Your task to perform on an android device: What's the weather today? Image 0: 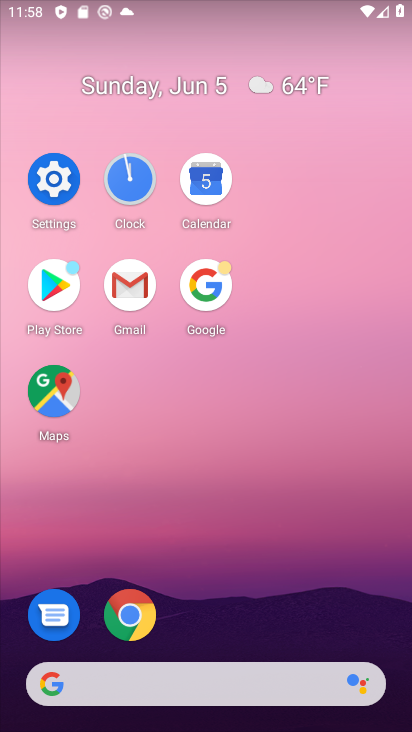
Step 0: click (203, 268)
Your task to perform on an android device: What's the weather today? Image 1: 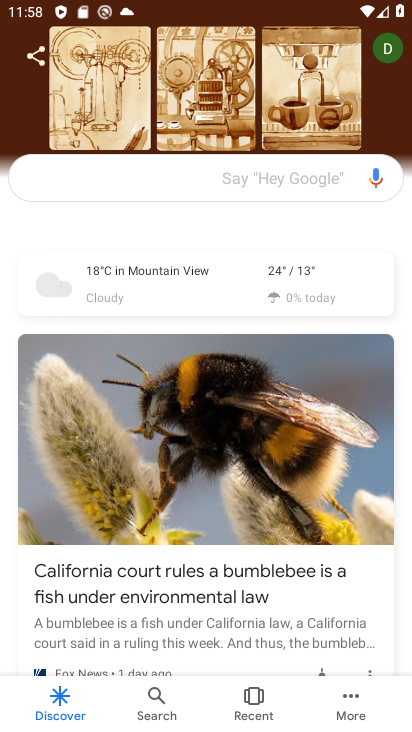
Step 1: click (213, 278)
Your task to perform on an android device: What's the weather today? Image 2: 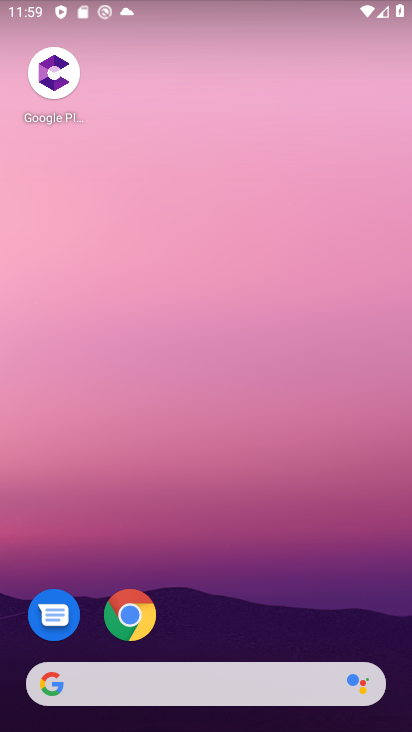
Step 2: drag from (67, 409) to (289, 271)
Your task to perform on an android device: What's the weather today? Image 3: 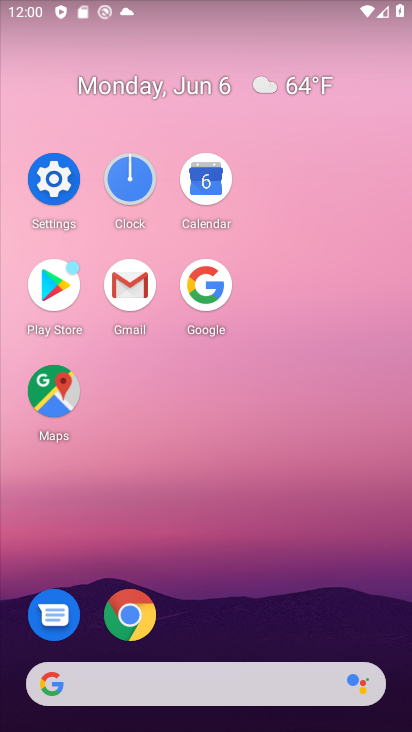
Step 3: click (207, 271)
Your task to perform on an android device: What's the weather today? Image 4: 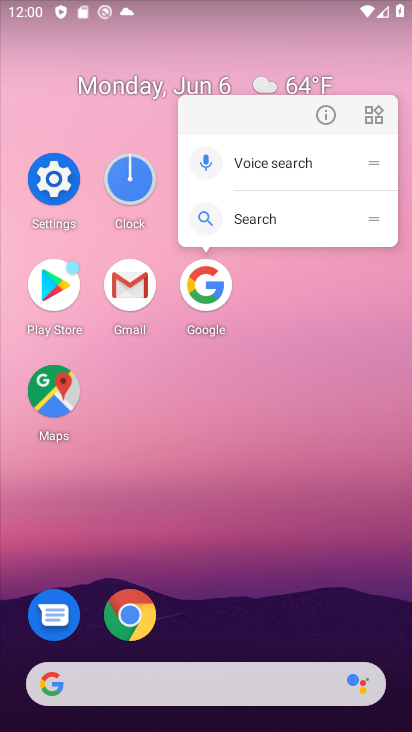
Step 4: click (210, 296)
Your task to perform on an android device: What's the weather today? Image 5: 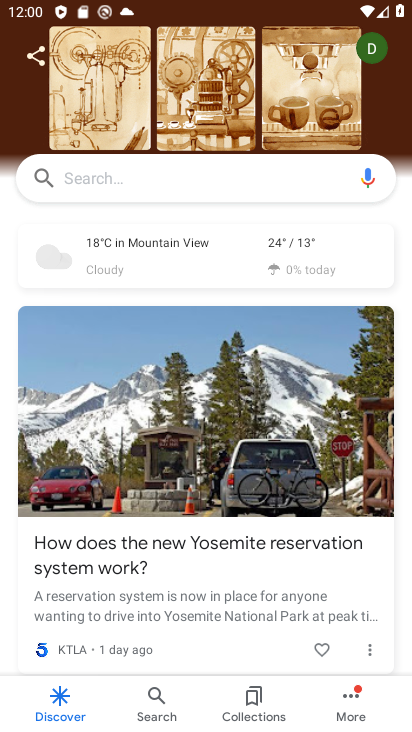
Step 5: click (155, 239)
Your task to perform on an android device: What's the weather today? Image 6: 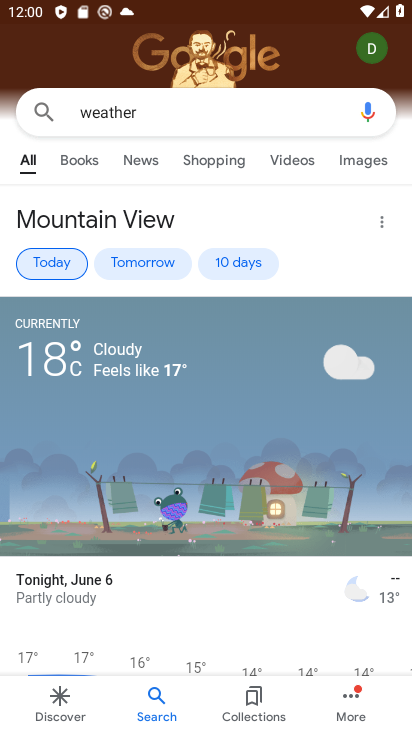
Step 6: task complete